Your task to perform on an android device: Open wifi settings Image 0: 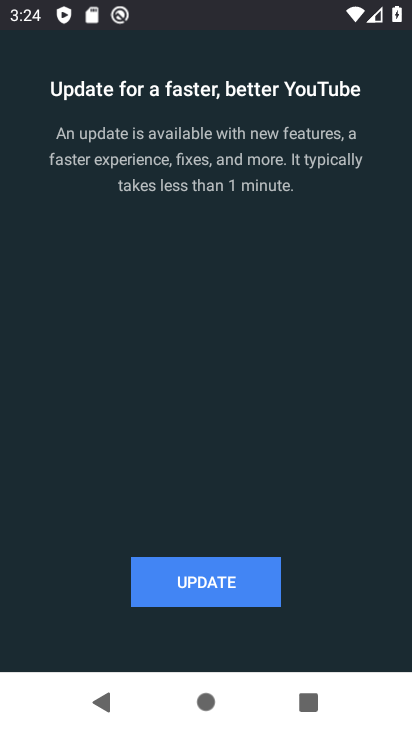
Step 0: press home button
Your task to perform on an android device: Open wifi settings Image 1: 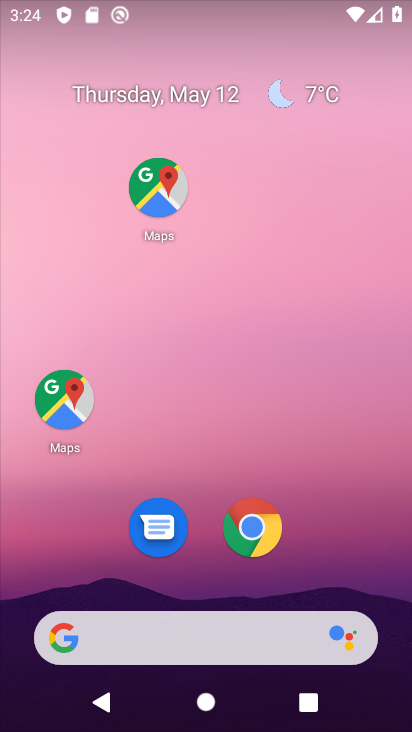
Step 1: drag from (162, 608) to (87, 7)
Your task to perform on an android device: Open wifi settings Image 2: 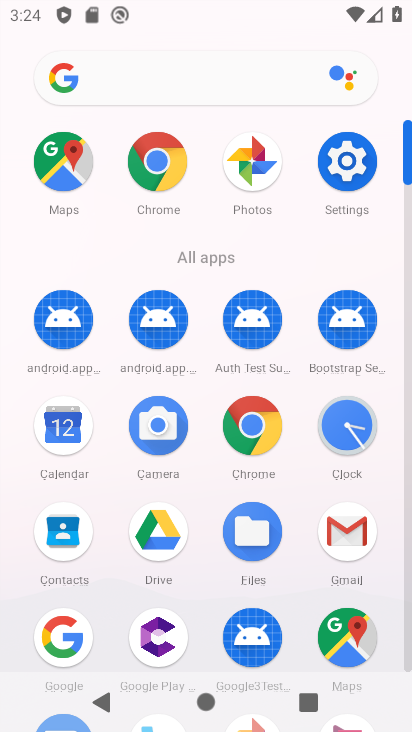
Step 2: click (361, 162)
Your task to perform on an android device: Open wifi settings Image 3: 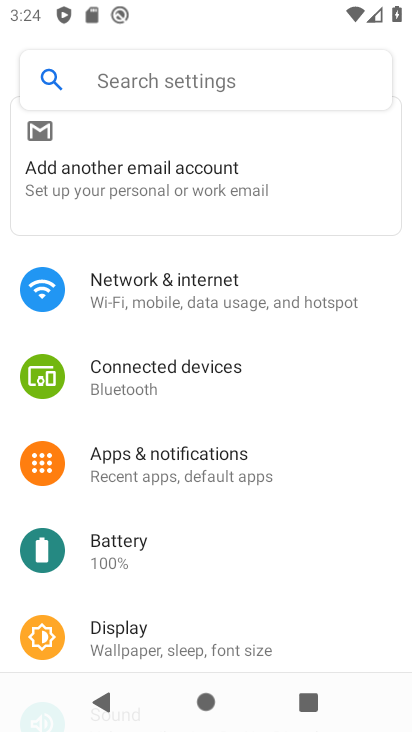
Step 3: click (250, 299)
Your task to perform on an android device: Open wifi settings Image 4: 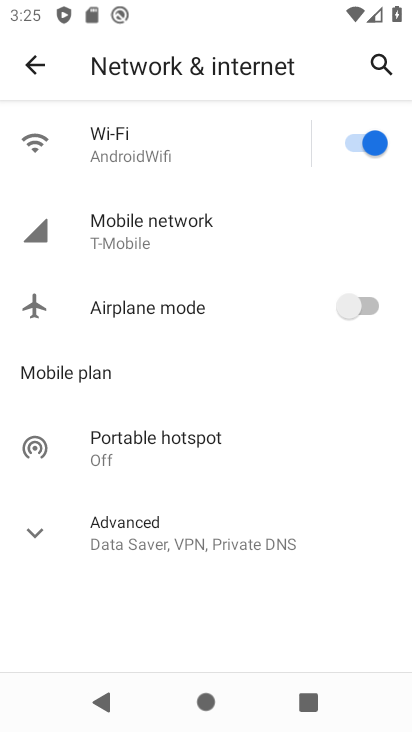
Step 4: click (125, 161)
Your task to perform on an android device: Open wifi settings Image 5: 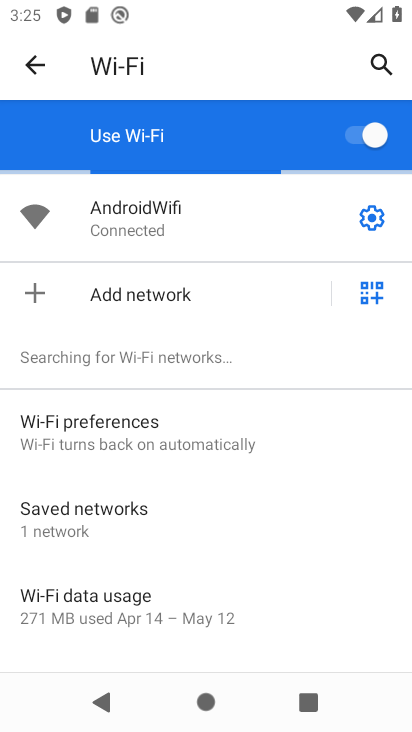
Step 5: task complete